Your task to perform on an android device: turn on wifi Image 0: 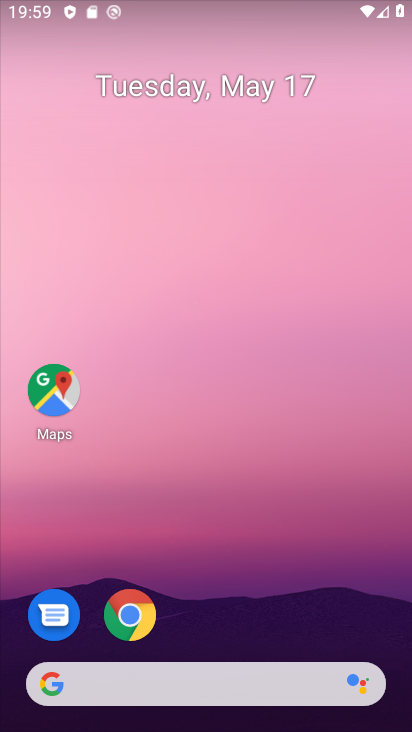
Step 0: drag from (115, 4) to (189, 451)
Your task to perform on an android device: turn on wifi Image 1: 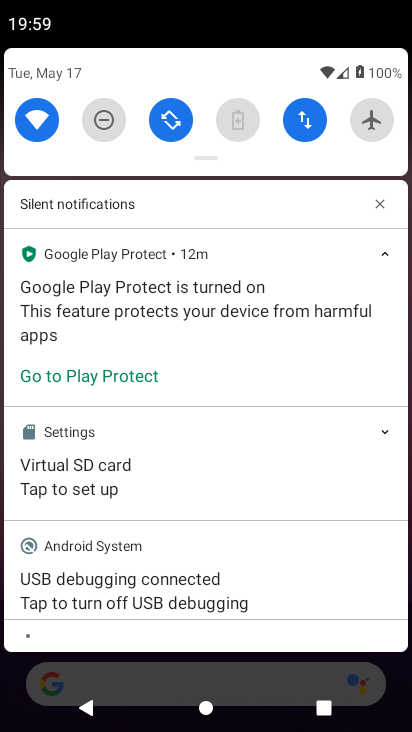
Step 1: task complete